Your task to perform on an android device: Open Chrome and go to the settings page Image 0: 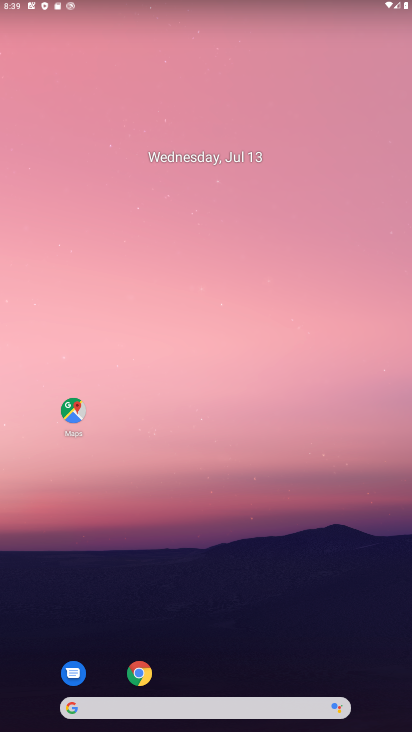
Step 0: drag from (254, 606) to (234, 146)
Your task to perform on an android device: Open Chrome and go to the settings page Image 1: 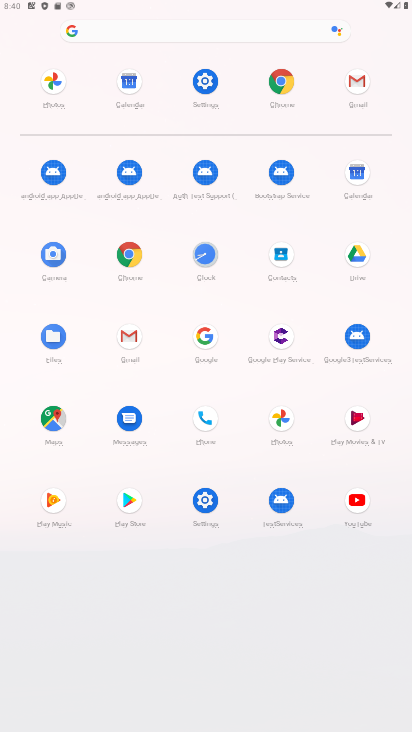
Step 1: click (126, 253)
Your task to perform on an android device: Open Chrome and go to the settings page Image 2: 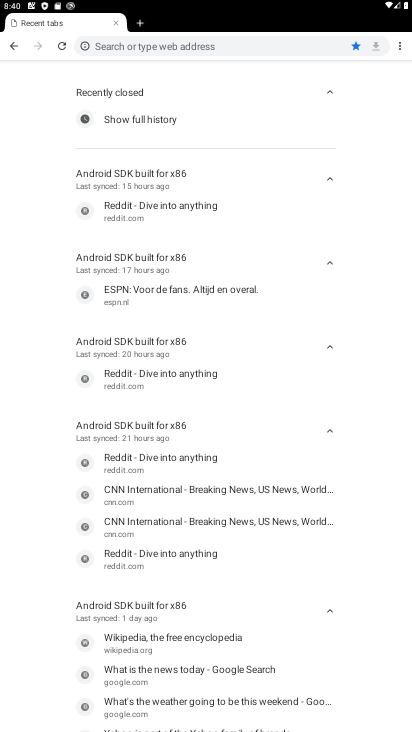
Step 2: task complete